Your task to perform on an android device: Is it going to rain tomorrow? Image 0: 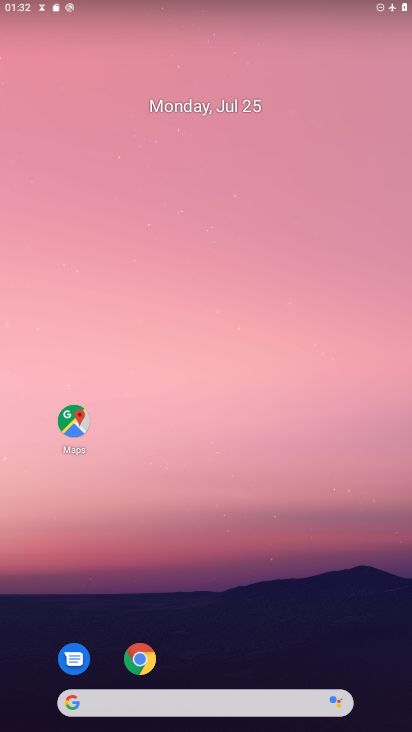
Step 0: drag from (238, 658) to (257, 217)
Your task to perform on an android device: Is it going to rain tomorrow? Image 1: 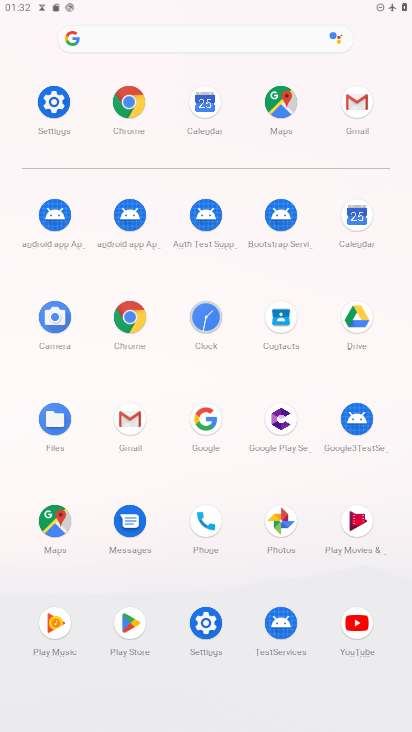
Step 1: click (132, 93)
Your task to perform on an android device: Is it going to rain tomorrow? Image 2: 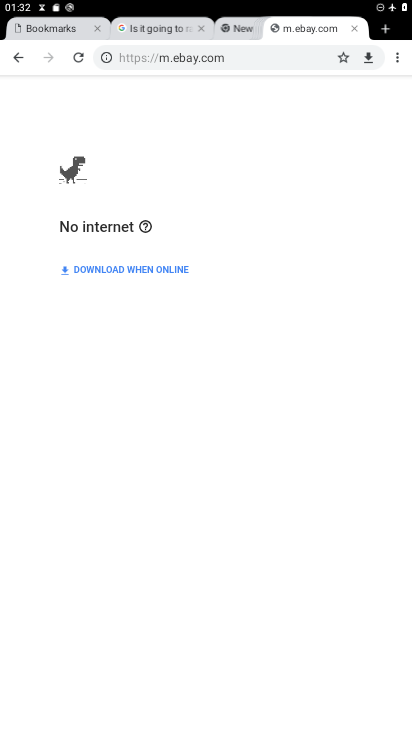
Step 2: click (393, 27)
Your task to perform on an android device: Is it going to rain tomorrow? Image 3: 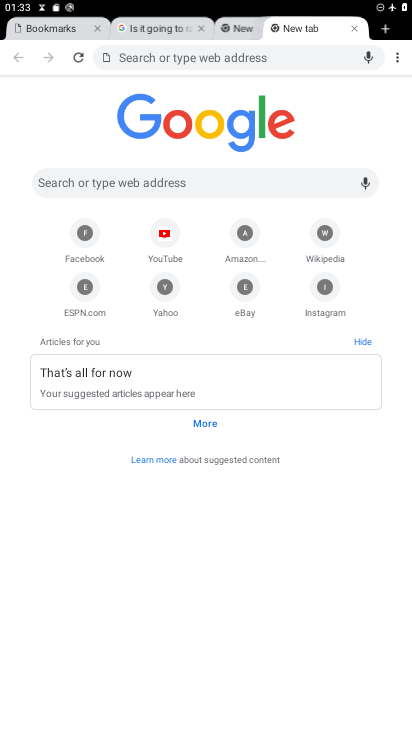
Step 3: click (238, 173)
Your task to perform on an android device: Is it going to rain tomorrow? Image 4: 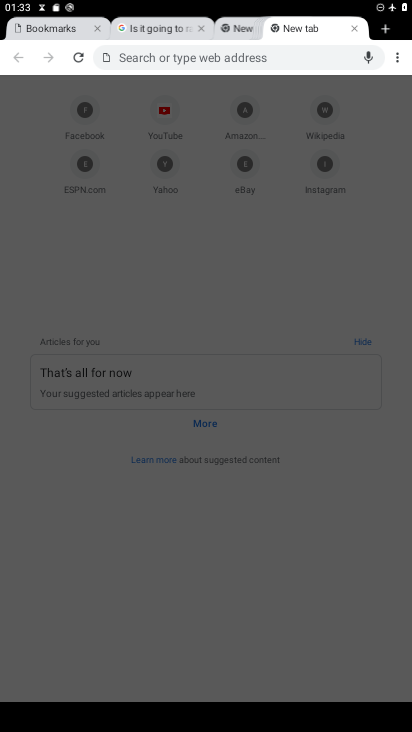
Step 4: type "Is it going to rain tomorrow "
Your task to perform on an android device: Is it going to rain tomorrow? Image 5: 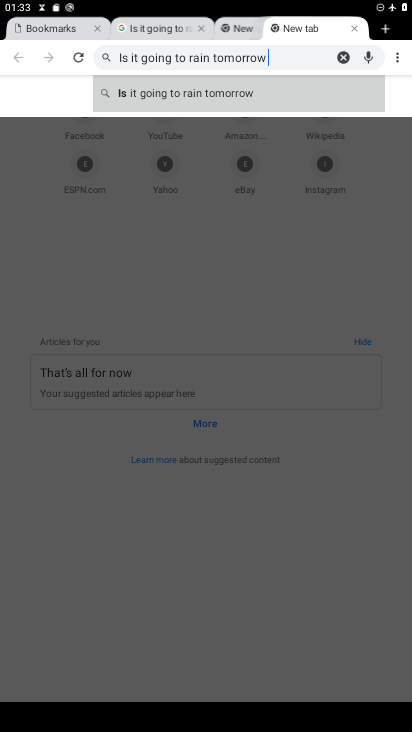
Step 5: click (195, 88)
Your task to perform on an android device: Is it going to rain tomorrow? Image 6: 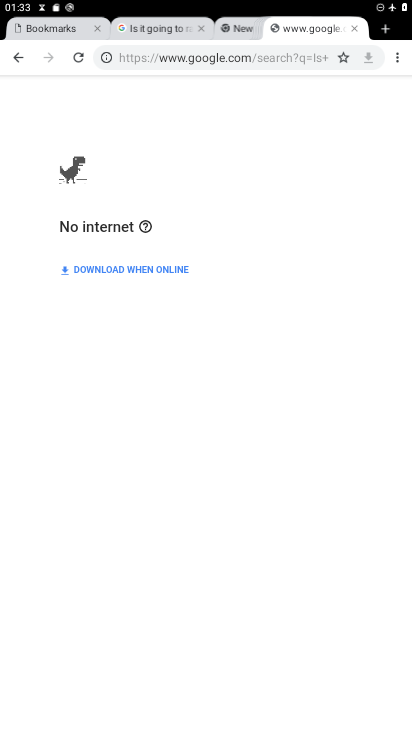
Step 6: task complete